Your task to perform on an android device: uninstall "Facebook Lite" Image 0: 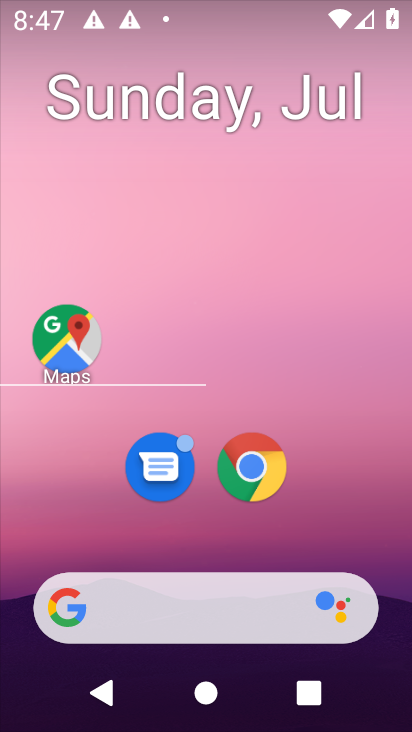
Step 0: click (257, 48)
Your task to perform on an android device: uninstall "Facebook Lite" Image 1: 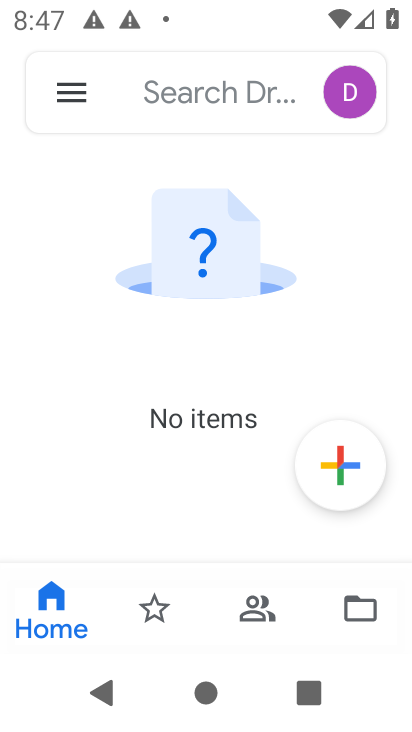
Step 1: press home button
Your task to perform on an android device: uninstall "Facebook Lite" Image 2: 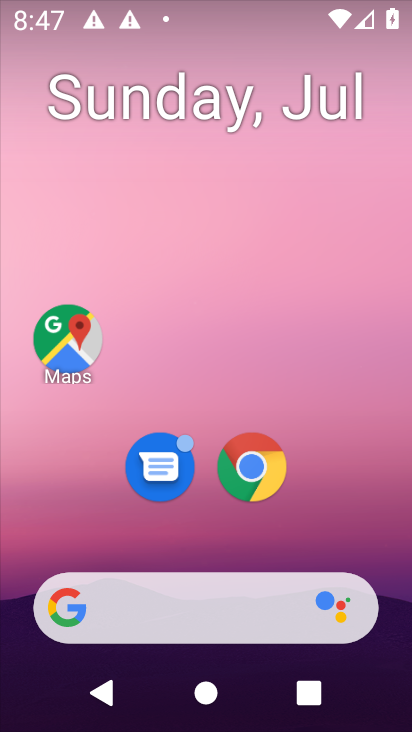
Step 2: drag from (198, 463) to (210, 17)
Your task to perform on an android device: uninstall "Facebook Lite" Image 3: 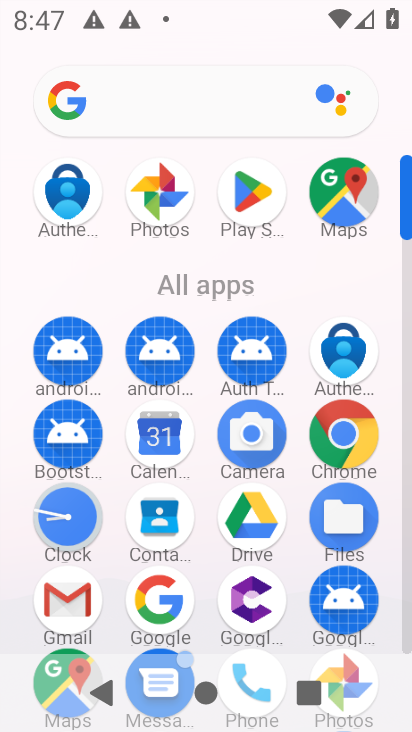
Step 3: click (244, 199)
Your task to perform on an android device: uninstall "Facebook Lite" Image 4: 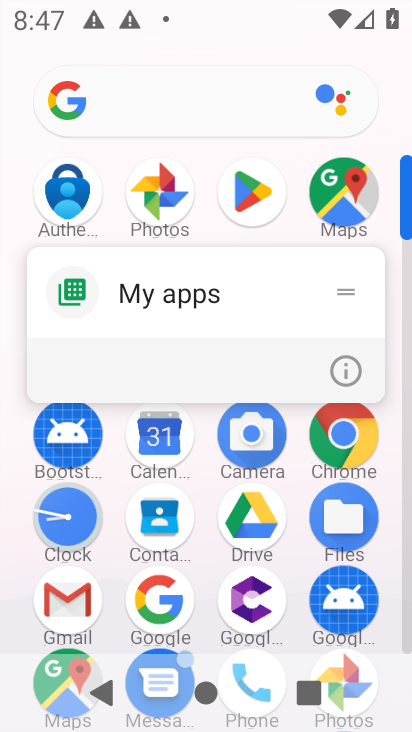
Step 4: click (262, 195)
Your task to perform on an android device: uninstall "Facebook Lite" Image 5: 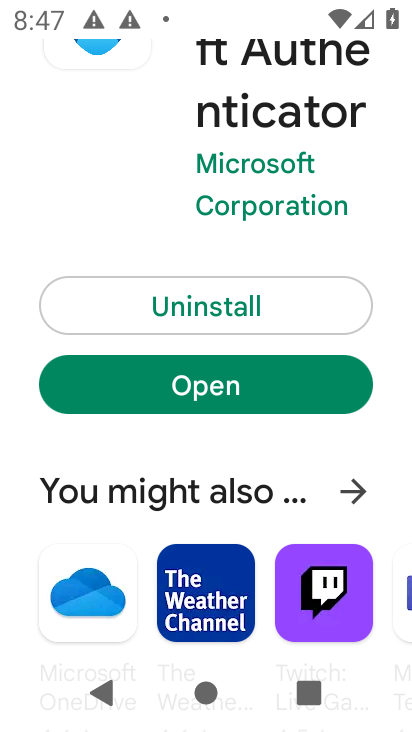
Step 5: press back button
Your task to perform on an android device: uninstall "Facebook Lite" Image 6: 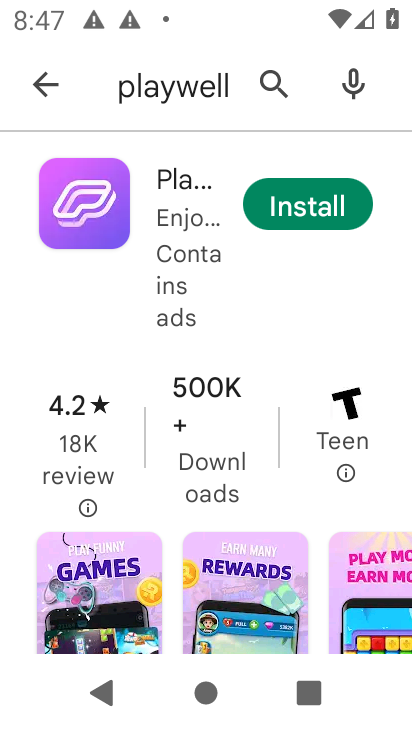
Step 6: click (271, 85)
Your task to perform on an android device: uninstall "Facebook Lite" Image 7: 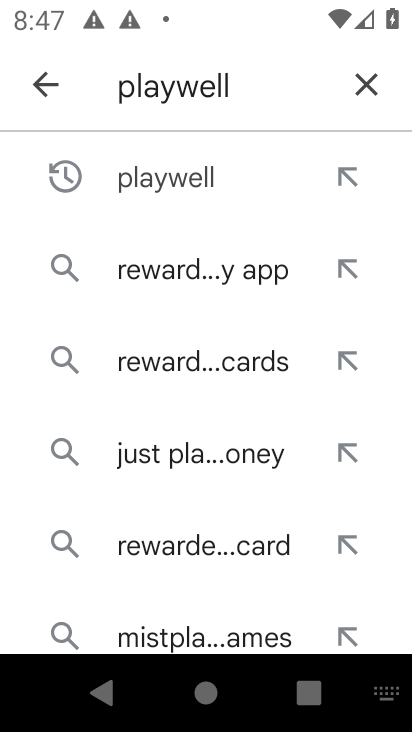
Step 7: click (367, 73)
Your task to perform on an android device: uninstall "Facebook Lite" Image 8: 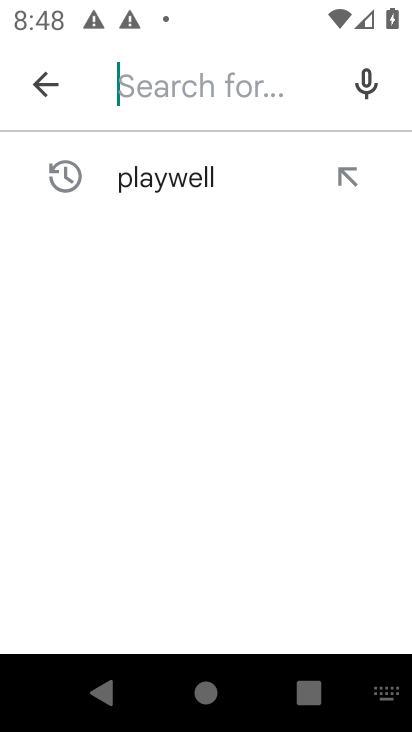
Step 8: type "facebook lite"
Your task to perform on an android device: uninstall "Facebook Lite" Image 9: 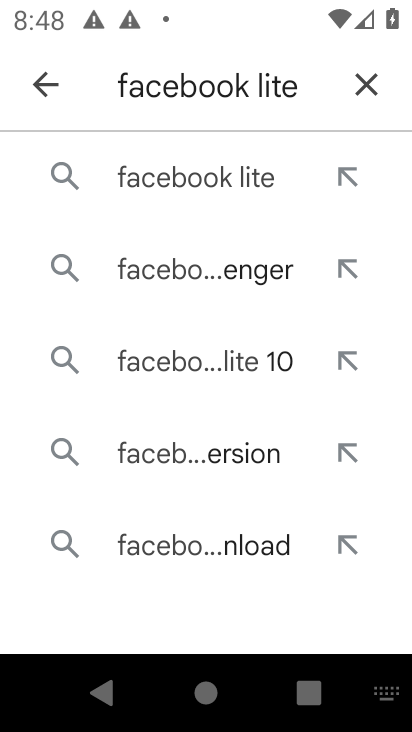
Step 9: click (147, 175)
Your task to perform on an android device: uninstall "Facebook Lite" Image 10: 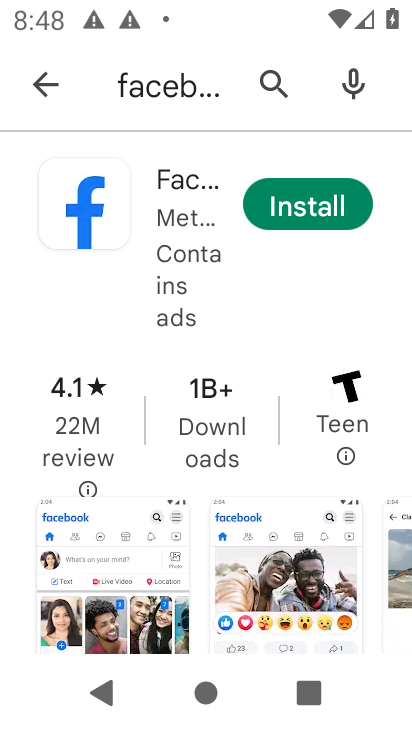
Step 10: task complete